Your task to perform on an android device: Open calendar and show me the second week of next month Image 0: 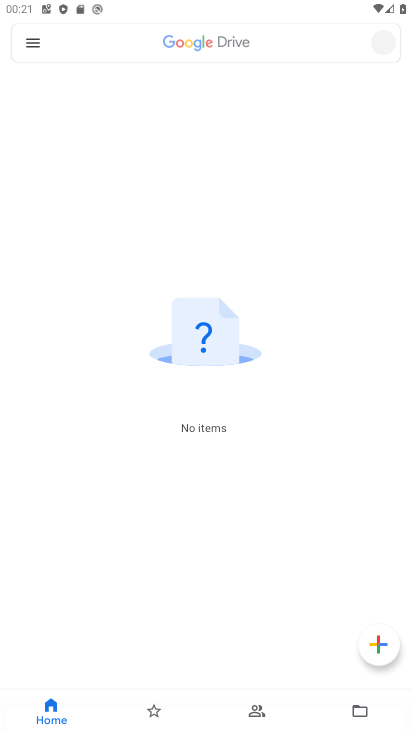
Step 0: drag from (263, 646) to (249, 212)
Your task to perform on an android device: Open calendar and show me the second week of next month Image 1: 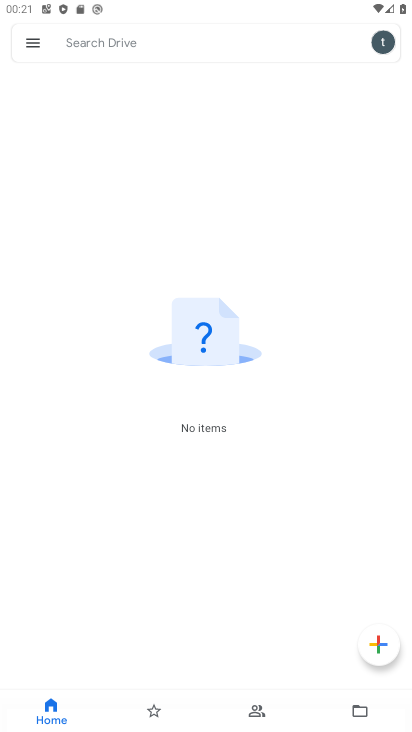
Step 1: press back button
Your task to perform on an android device: Open calendar and show me the second week of next month Image 2: 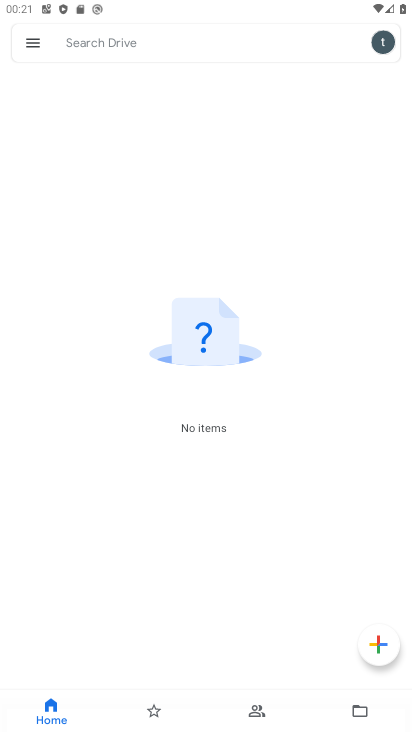
Step 2: press back button
Your task to perform on an android device: Open calendar and show me the second week of next month Image 3: 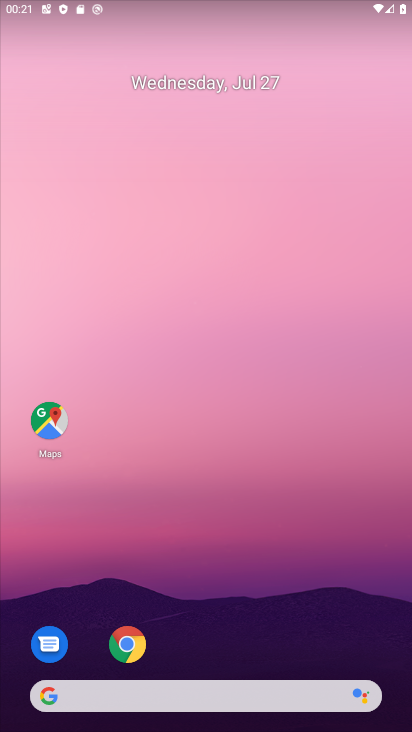
Step 3: drag from (259, 239) to (258, 155)
Your task to perform on an android device: Open calendar and show me the second week of next month Image 4: 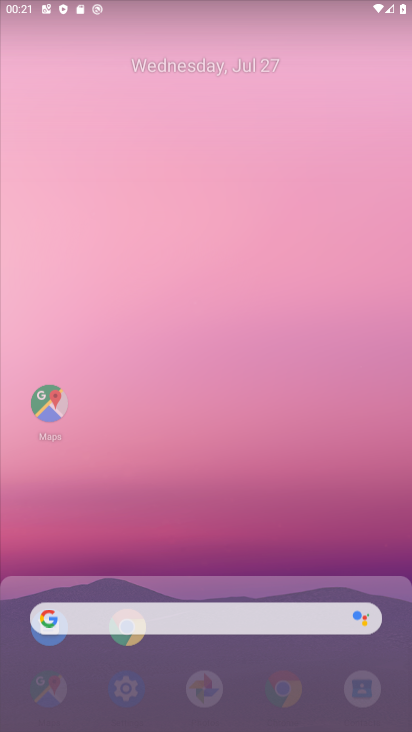
Step 4: drag from (217, 403) to (217, 53)
Your task to perform on an android device: Open calendar and show me the second week of next month Image 5: 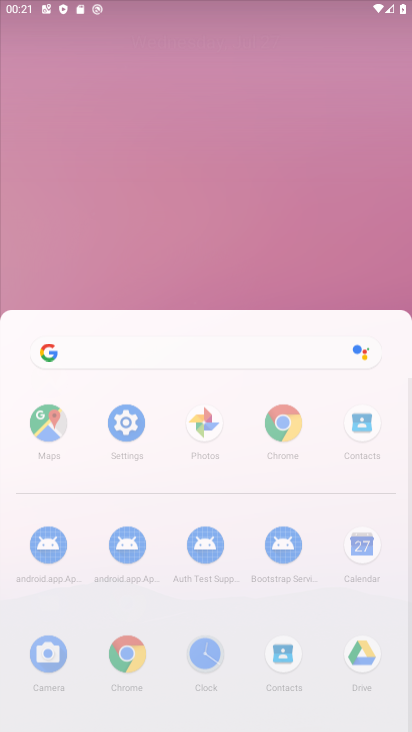
Step 5: drag from (125, 261) to (115, 20)
Your task to perform on an android device: Open calendar and show me the second week of next month Image 6: 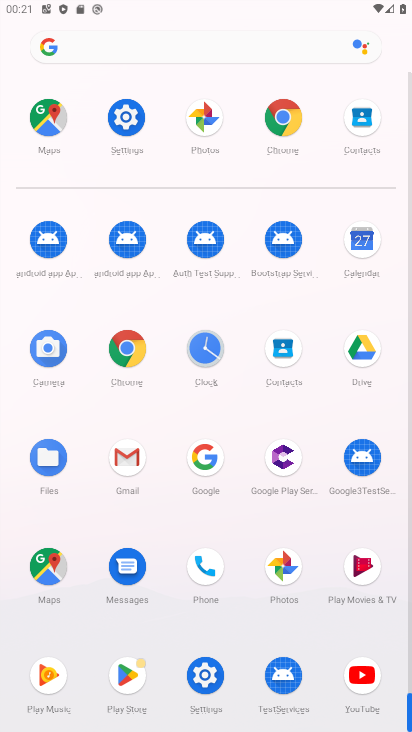
Step 6: drag from (131, 464) to (131, 37)
Your task to perform on an android device: Open calendar and show me the second week of next month Image 7: 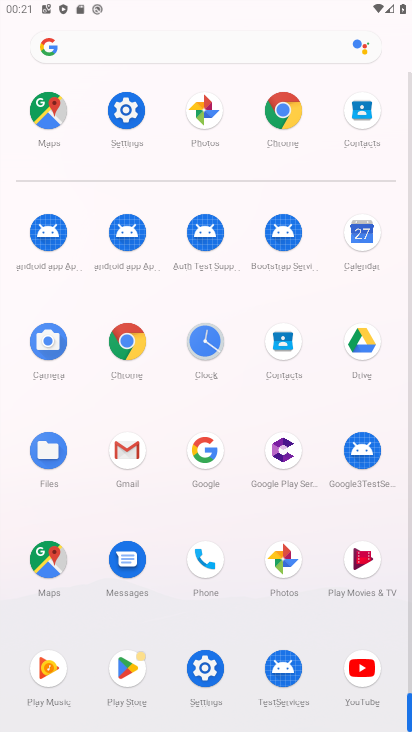
Step 7: click (362, 232)
Your task to perform on an android device: Open calendar and show me the second week of next month Image 8: 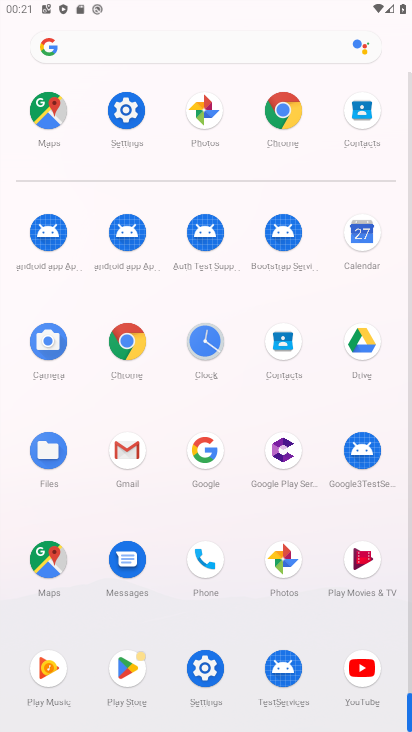
Step 8: click (363, 235)
Your task to perform on an android device: Open calendar and show me the second week of next month Image 9: 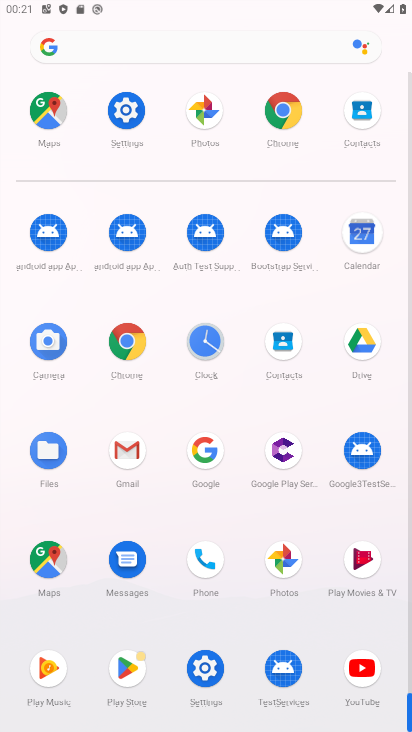
Step 9: click (364, 231)
Your task to perform on an android device: Open calendar and show me the second week of next month Image 10: 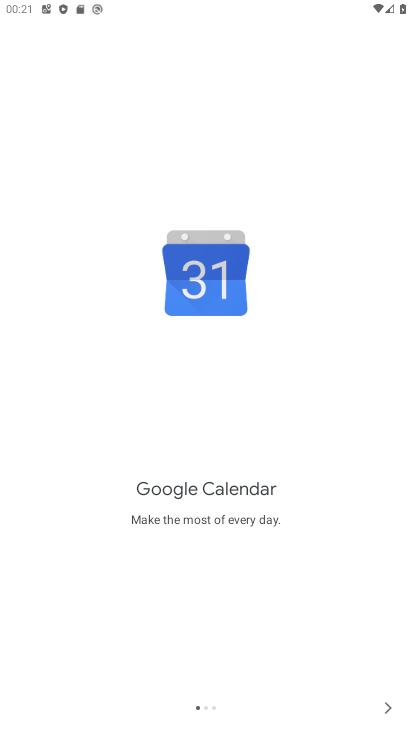
Step 10: click (397, 705)
Your task to perform on an android device: Open calendar and show me the second week of next month Image 11: 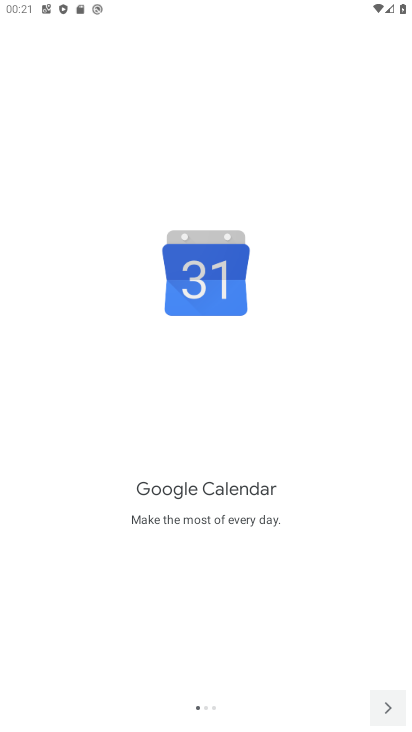
Step 11: click (396, 708)
Your task to perform on an android device: Open calendar and show me the second week of next month Image 12: 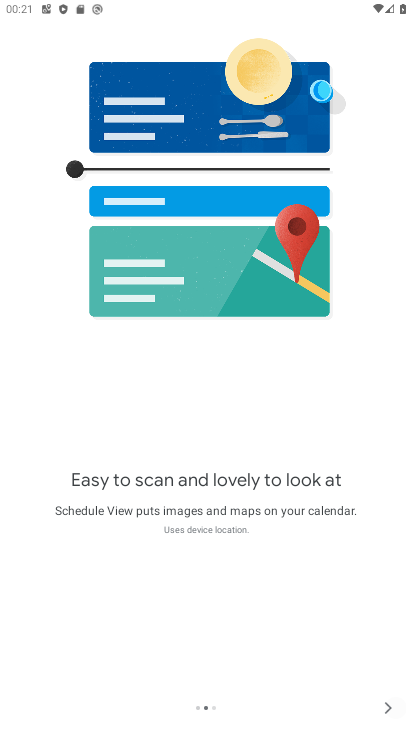
Step 12: click (397, 706)
Your task to perform on an android device: Open calendar and show me the second week of next month Image 13: 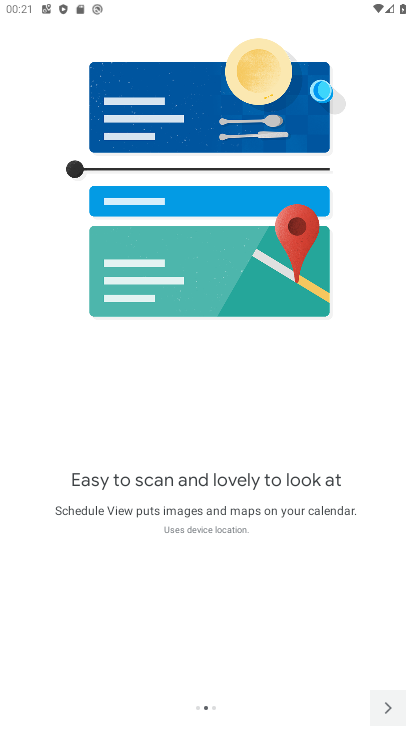
Step 13: click (397, 705)
Your task to perform on an android device: Open calendar and show me the second week of next month Image 14: 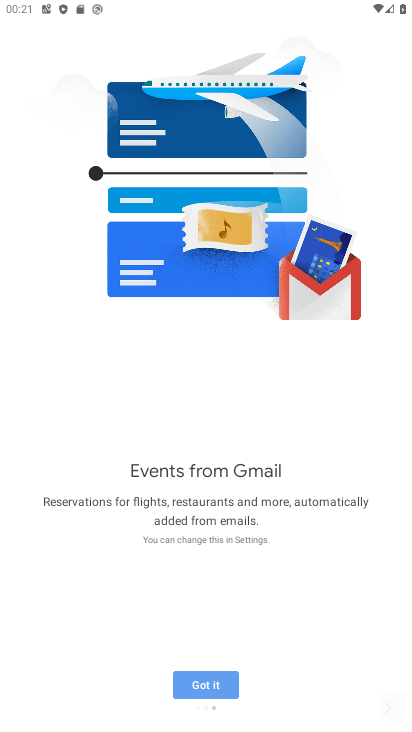
Step 14: click (397, 705)
Your task to perform on an android device: Open calendar and show me the second week of next month Image 15: 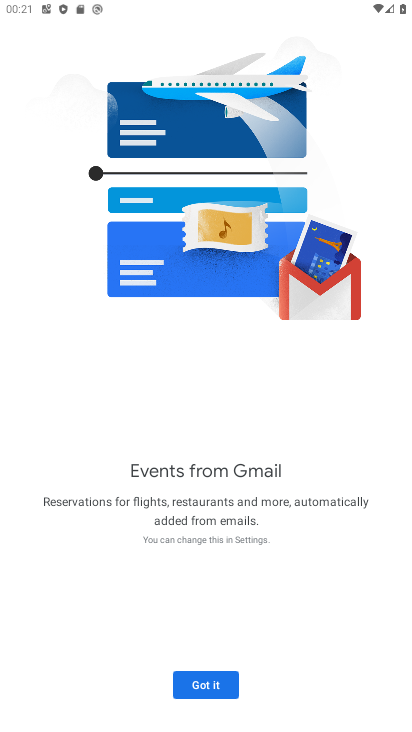
Step 15: click (397, 705)
Your task to perform on an android device: Open calendar and show me the second week of next month Image 16: 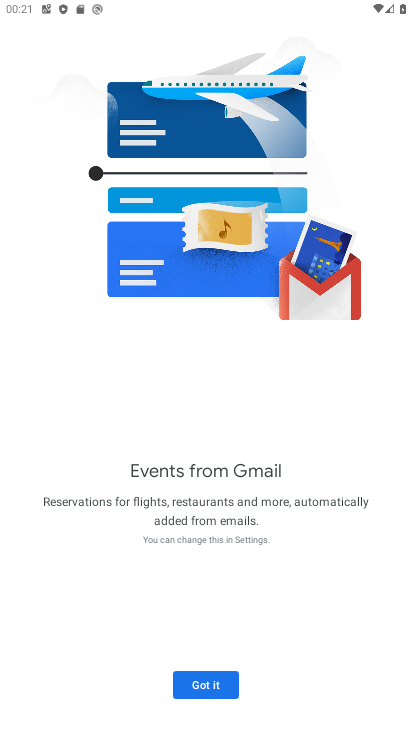
Step 16: click (221, 681)
Your task to perform on an android device: Open calendar and show me the second week of next month Image 17: 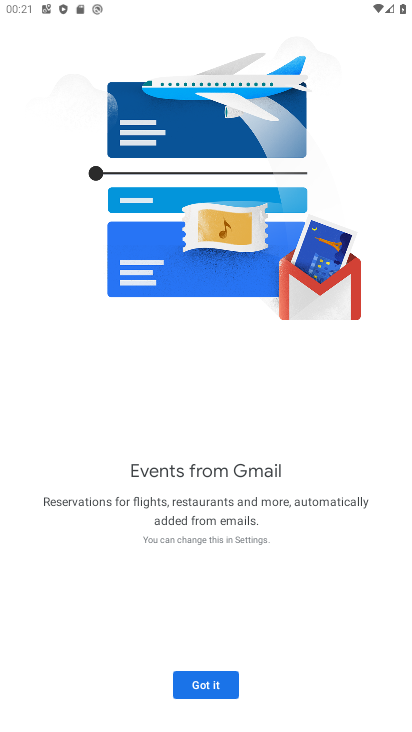
Step 17: click (220, 682)
Your task to perform on an android device: Open calendar and show me the second week of next month Image 18: 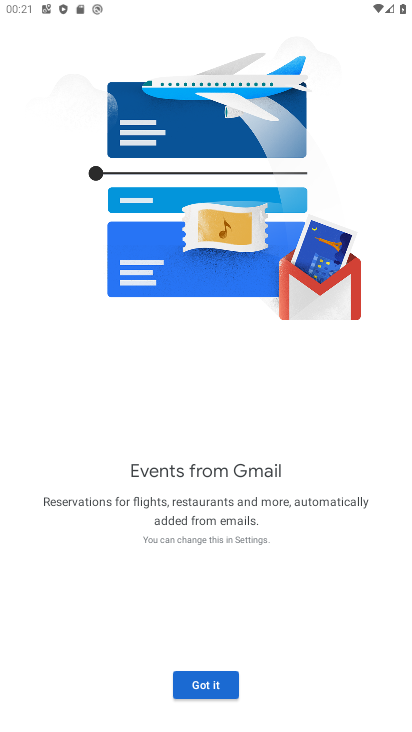
Step 18: click (220, 683)
Your task to perform on an android device: Open calendar and show me the second week of next month Image 19: 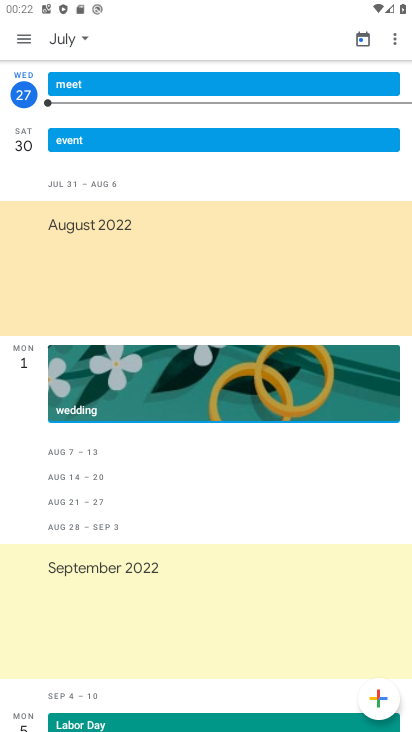
Step 19: click (82, 29)
Your task to perform on an android device: Open calendar and show me the second week of next month Image 20: 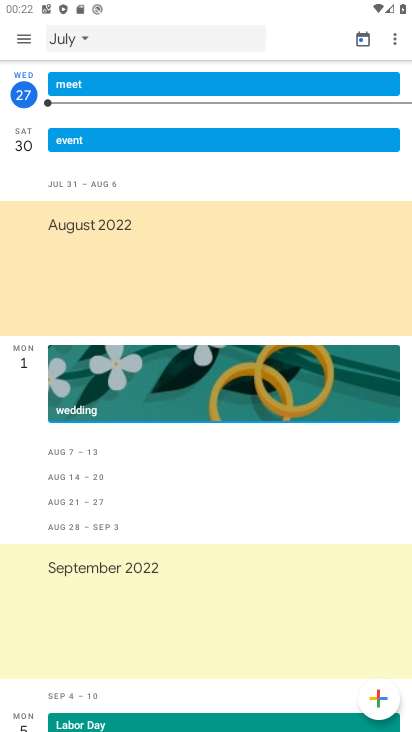
Step 20: click (81, 34)
Your task to perform on an android device: Open calendar and show me the second week of next month Image 21: 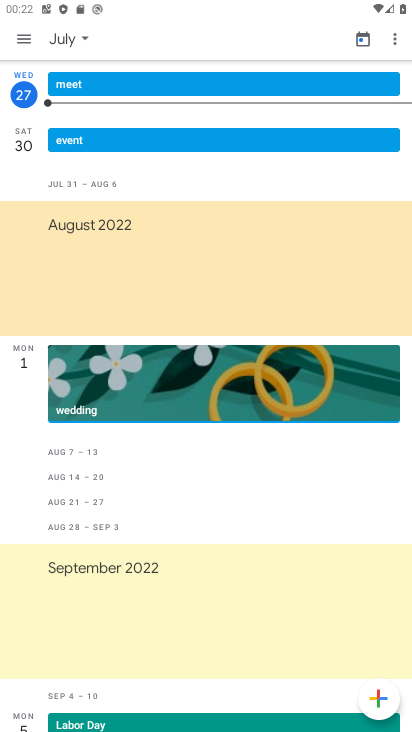
Step 21: click (93, 37)
Your task to perform on an android device: Open calendar and show me the second week of next month Image 22: 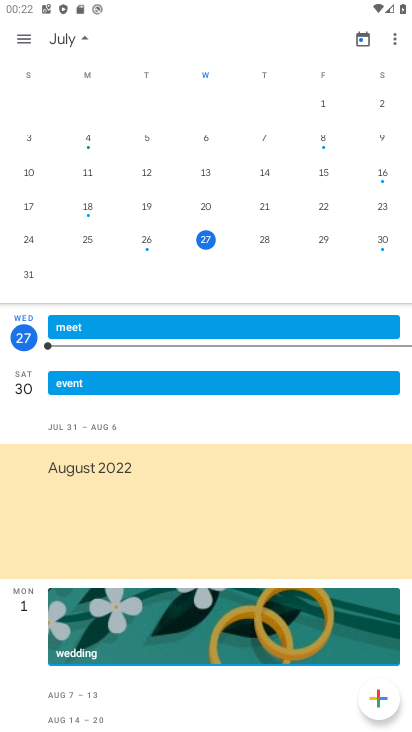
Step 22: drag from (295, 213) to (28, 238)
Your task to perform on an android device: Open calendar and show me the second week of next month Image 23: 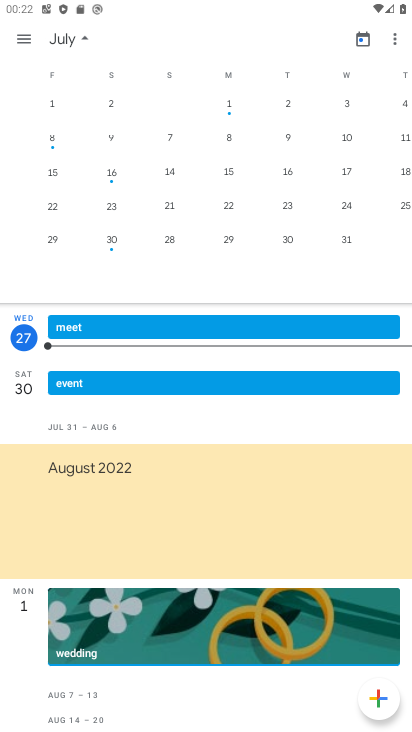
Step 23: drag from (212, 186) to (0, 204)
Your task to perform on an android device: Open calendar and show me the second week of next month Image 24: 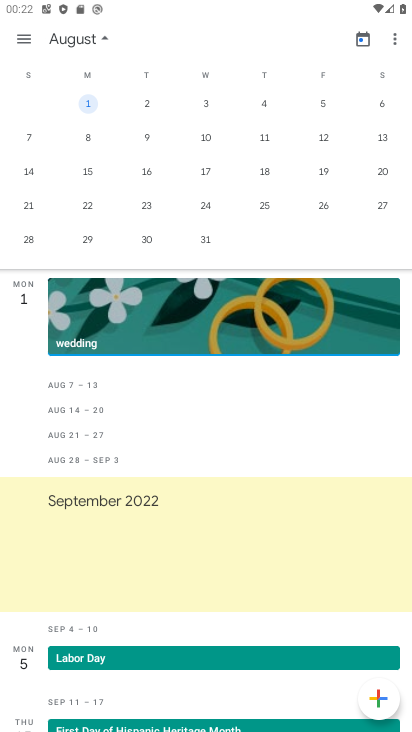
Step 24: click (149, 133)
Your task to perform on an android device: Open calendar and show me the second week of next month Image 25: 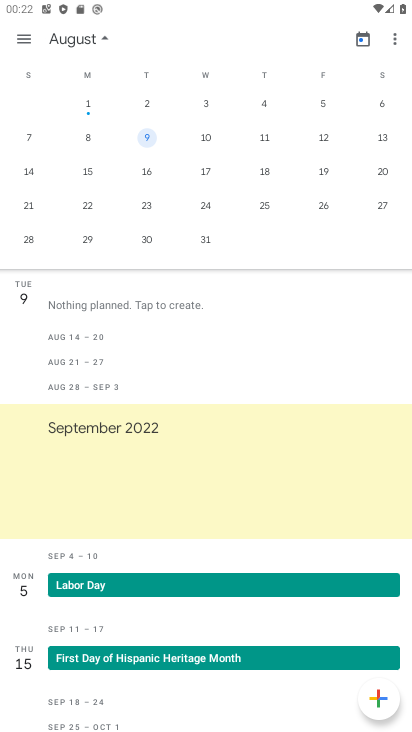
Step 25: click (150, 138)
Your task to perform on an android device: Open calendar and show me the second week of next month Image 26: 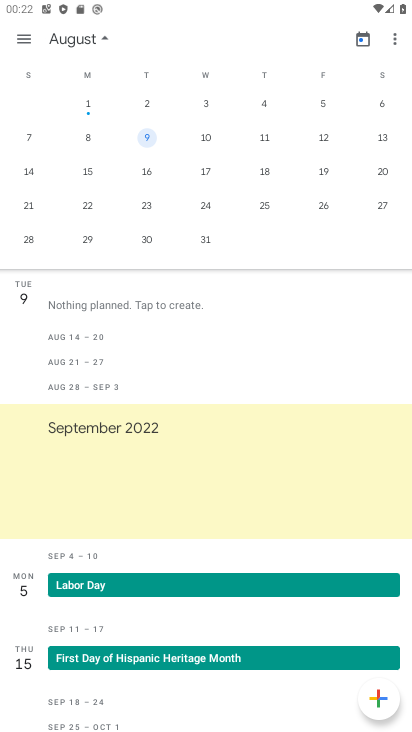
Step 26: click (152, 135)
Your task to perform on an android device: Open calendar and show me the second week of next month Image 27: 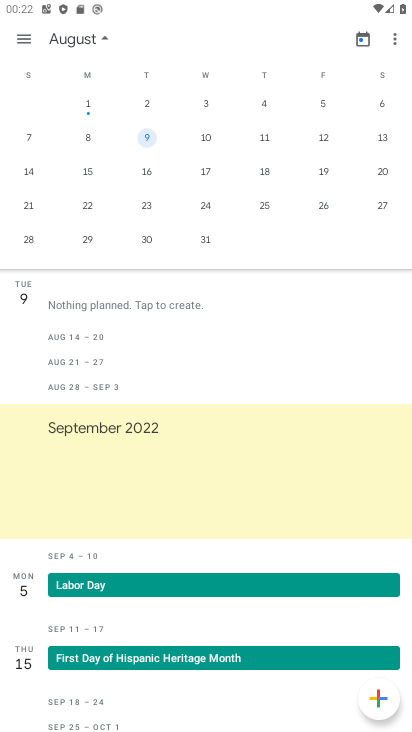
Step 27: task complete